Your task to perform on an android device: Open the calendar app, open the side menu, and click the "Day" option Image 0: 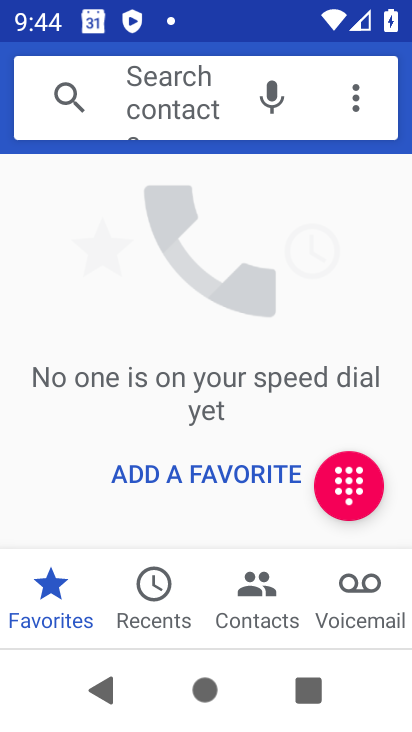
Step 0: press home button
Your task to perform on an android device: Open the calendar app, open the side menu, and click the "Day" option Image 1: 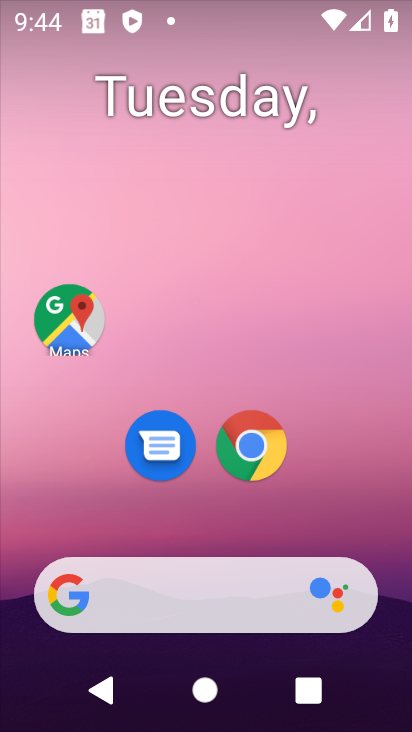
Step 1: drag from (207, 521) to (257, 0)
Your task to perform on an android device: Open the calendar app, open the side menu, and click the "Day" option Image 2: 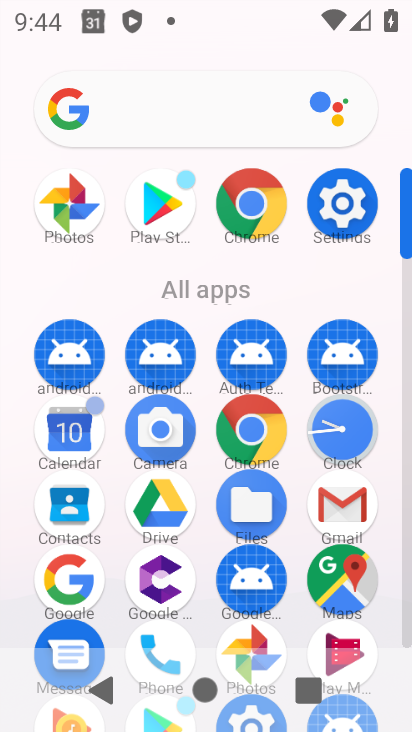
Step 2: click (69, 440)
Your task to perform on an android device: Open the calendar app, open the side menu, and click the "Day" option Image 3: 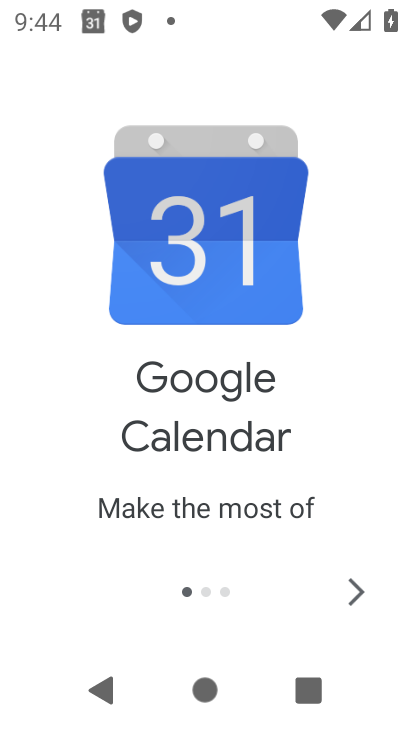
Step 3: click (349, 584)
Your task to perform on an android device: Open the calendar app, open the side menu, and click the "Day" option Image 4: 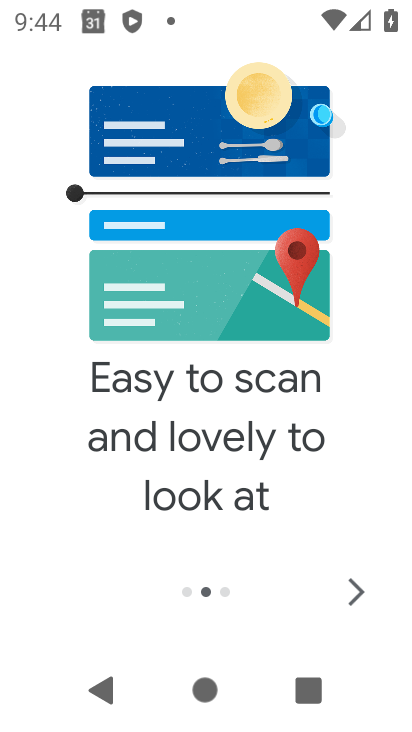
Step 4: click (347, 592)
Your task to perform on an android device: Open the calendar app, open the side menu, and click the "Day" option Image 5: 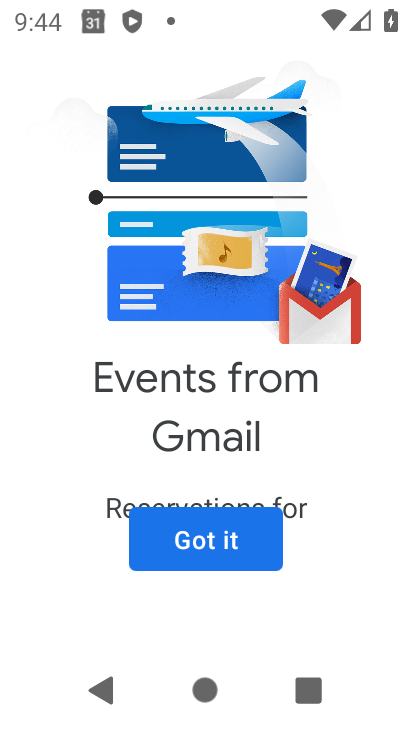
Step 5: click (213, 546)
Your task to perform on an android device: Open the calendar app, open the side menu, and click the "Day" option Image 6: 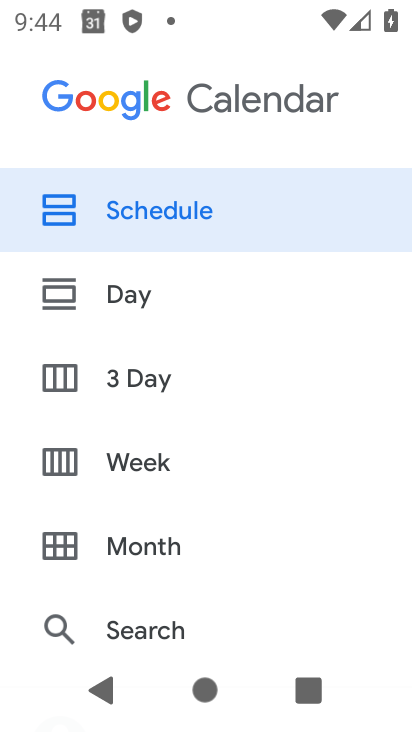
Step 6: click (94, 282)
Your task to perform on an android device: Open the calendar app, open the side menu, and click the "Day" option Image 7: 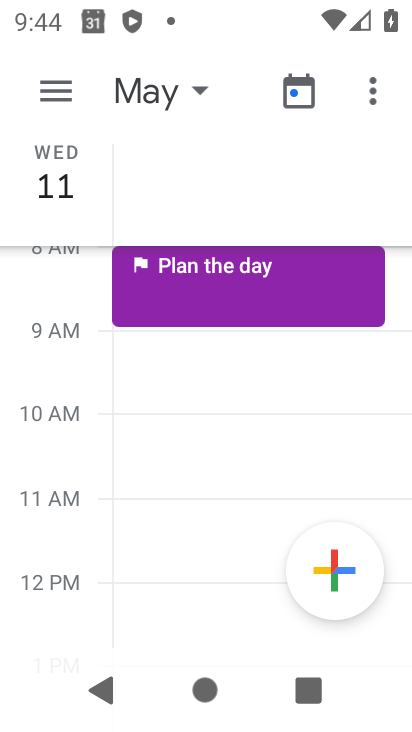
Step 7: task complete